Your task to perform on an android device: open wifi settings Image 0: 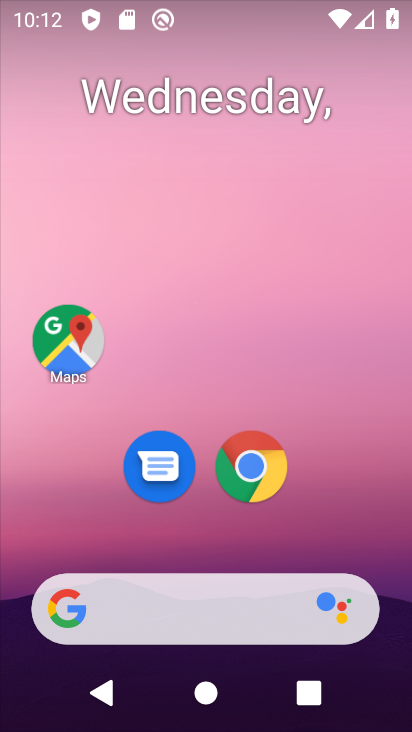
Step 0: drag from (218, 724) to (246, 195)
Your task to perform on an android device: open wifi settings Image 1: 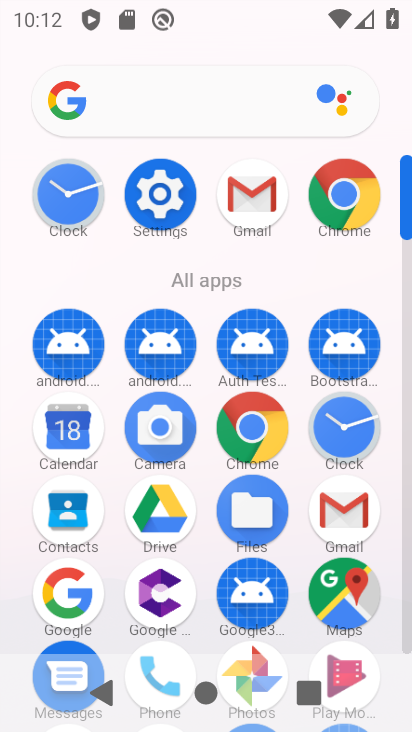
Step 1: click (156, 197)
Your task to perform on an android device: open wifi settings Image 2: 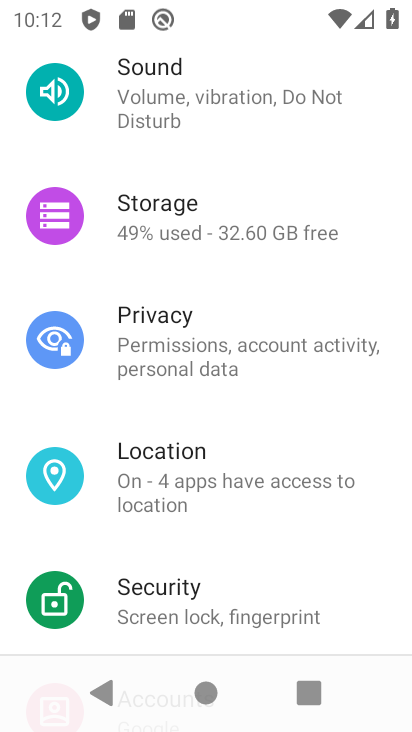
Step 2: drag from (241, 160) to (239, 541)
Your task to perform on an android device: open wifi settings Image 3: 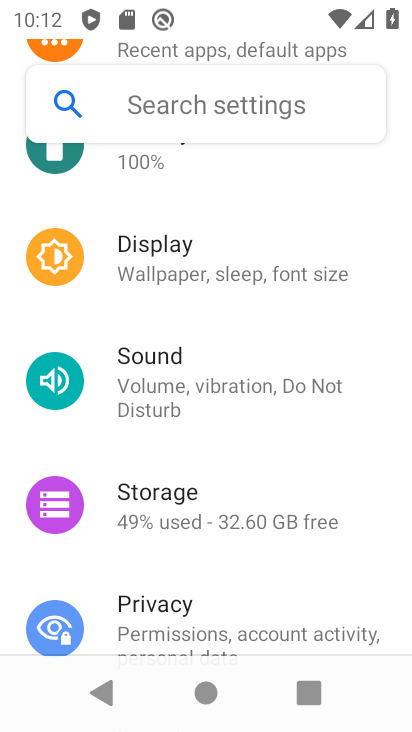
Step 3: drag from (259, 201) to (242, 571)
Your task to perform on an android device: open wifi settings Image 4: 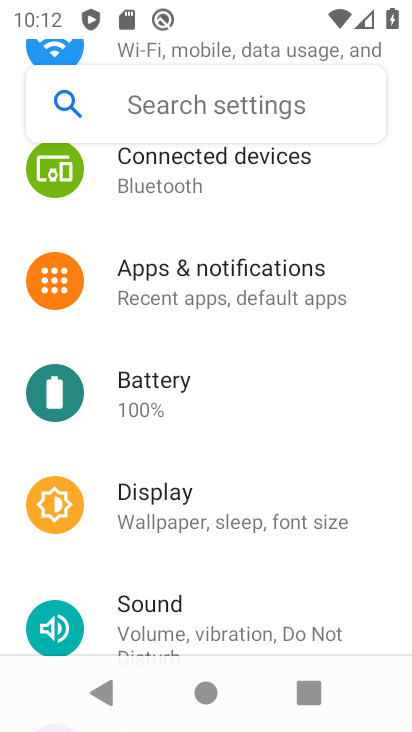
Step 4: drag from (268, 201) to (246, 572)
Your task to perform on an android device: open wifi settings Image 5: 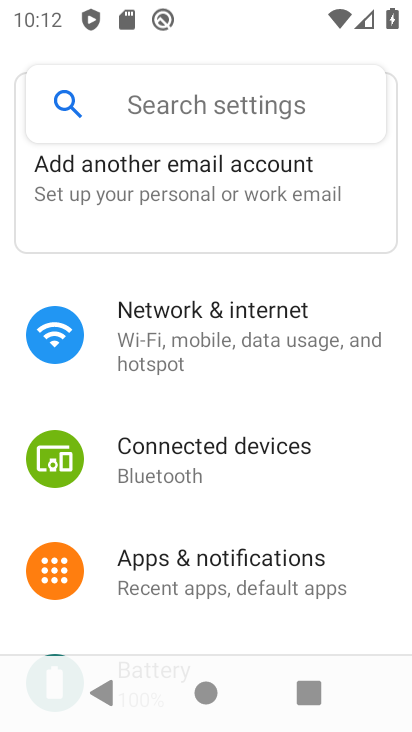
Step 5: click (153, 319)
Your task to perform on an android device: open wifi settings Image 6: 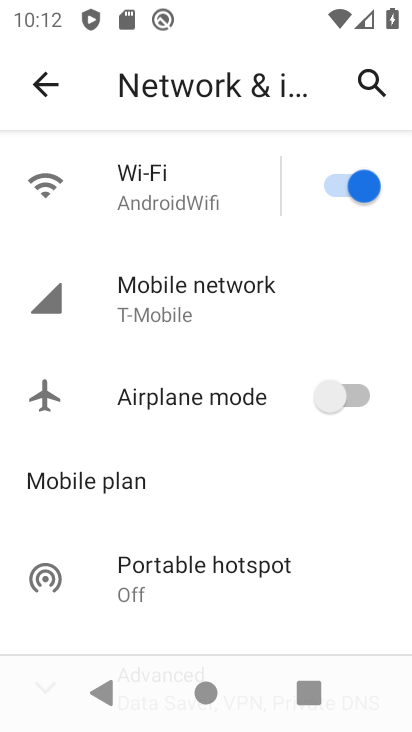
Step 6: click (145, 193)
Your task to perform on an android device: open wifi settings Image 7: 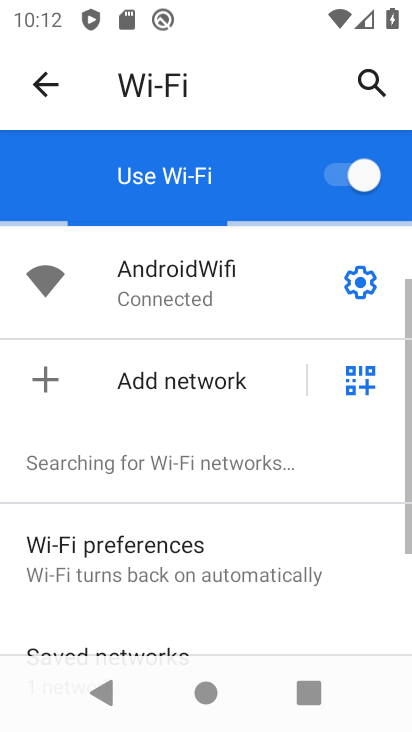
Step 7: task complete